Your task to perform on an android device: toggle location history Image 0: 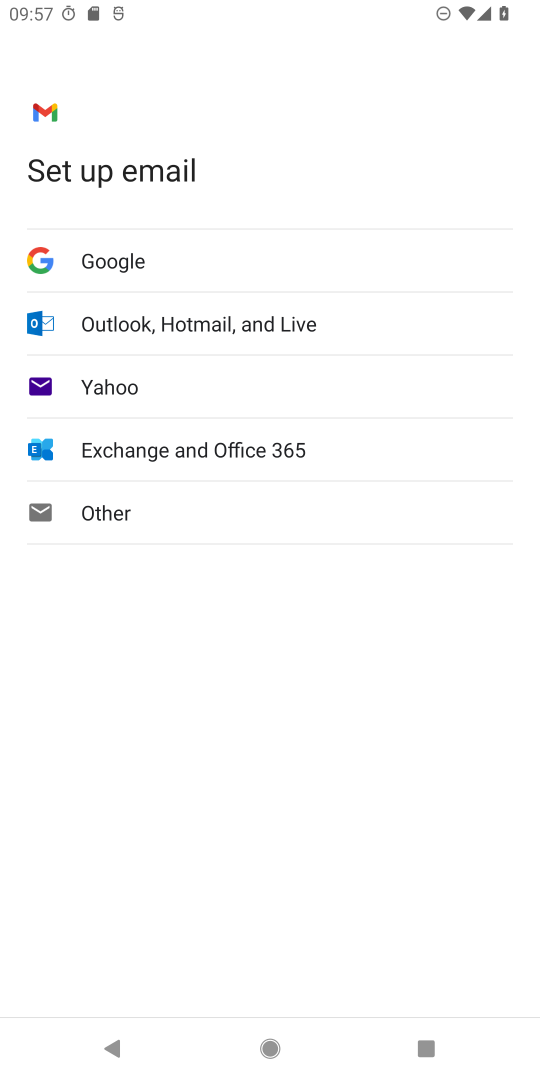
Step 0: press home button
Your task to perform on an android device: toggle location history Image 1: 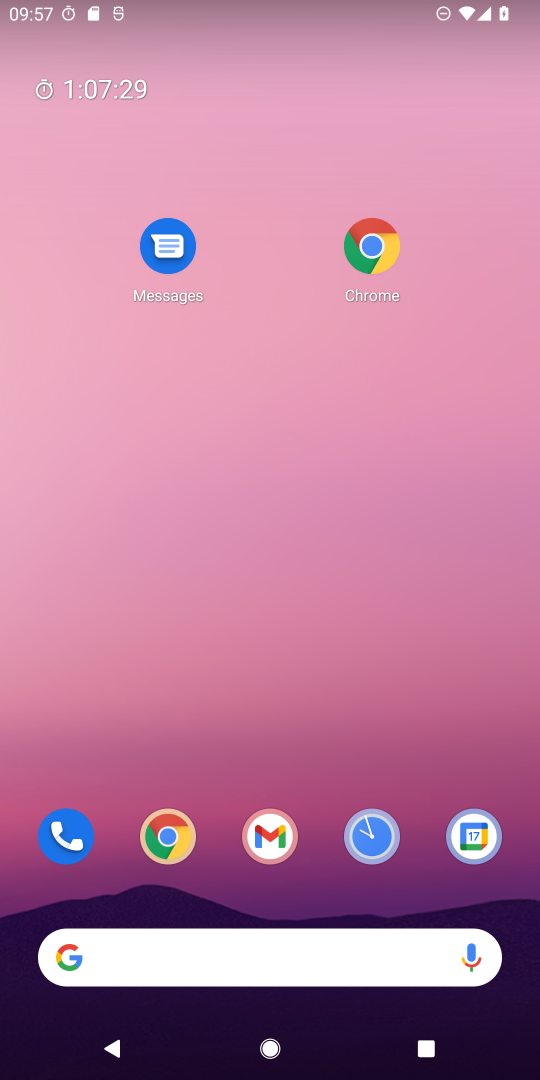
Step 1: drag from (286, 633) to (324, 240)
Your task to perform on an android device: toggle location history Image 2: 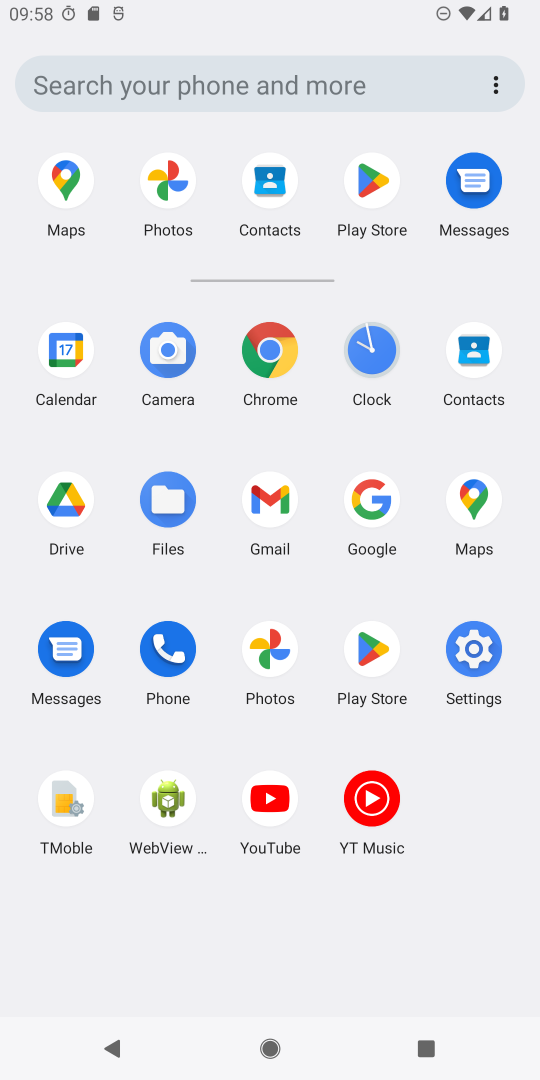
Step 2: click (480, 652)
Your task to perform on an android device: toggle location history Image 3: 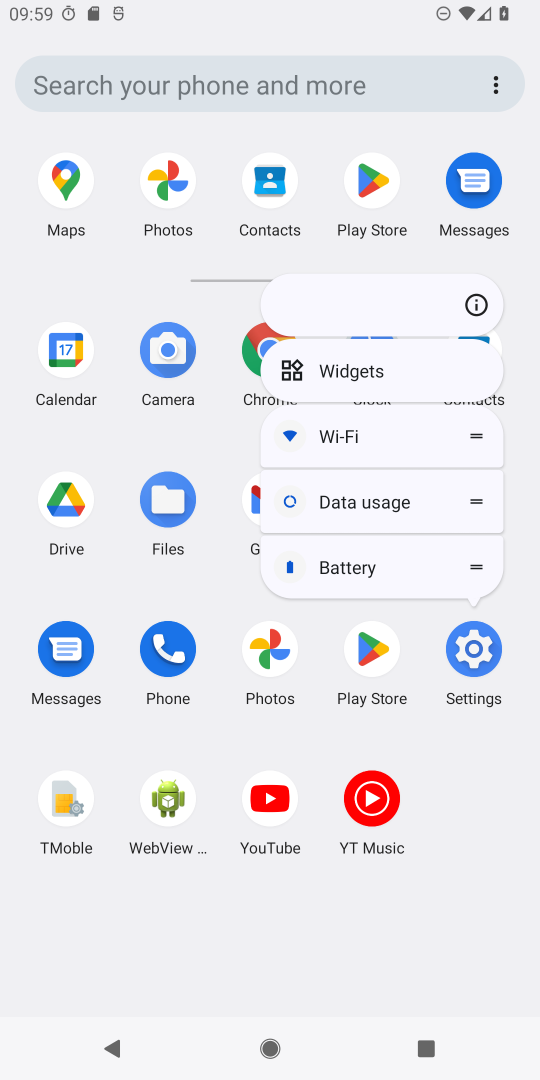
Step 3: click (459, 652)
Your task to perform on an android device: toggle location history Image 4: 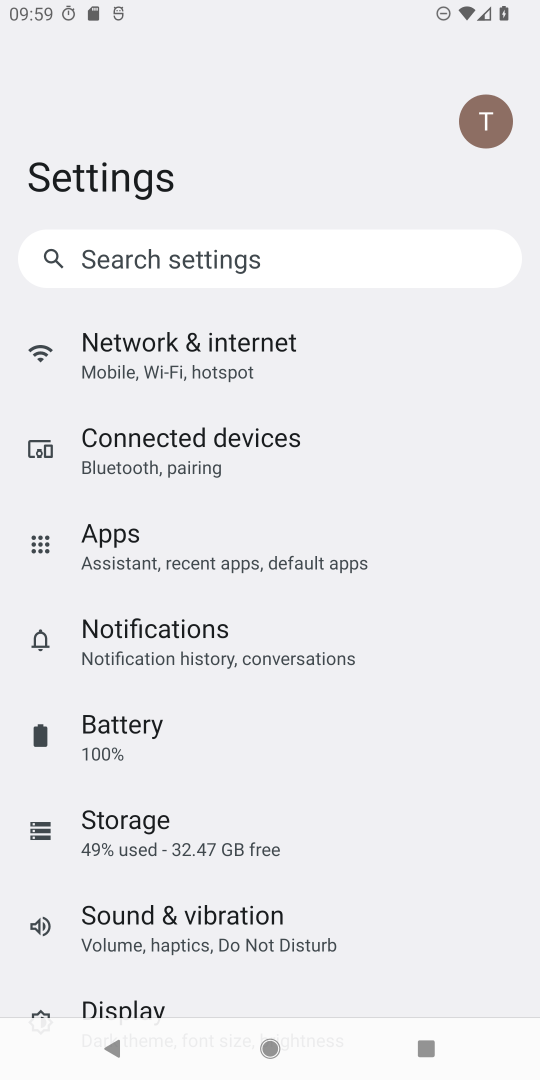
Step 4: drag from (206, 930) to (225, 242)
Your task to perform on an android device: toggle location history Image 5: 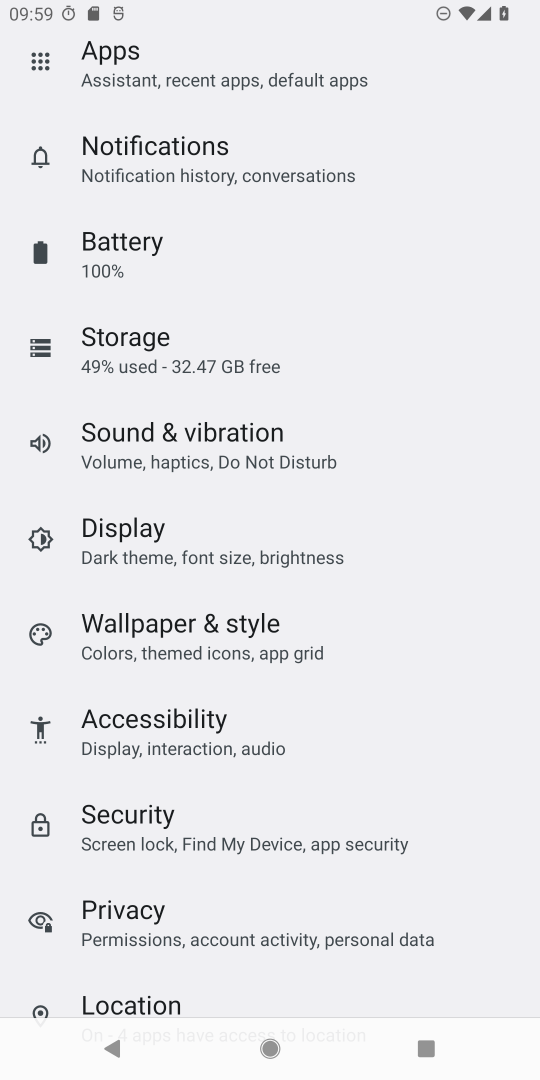
Step 5: click (129, 996)
Your task to perform on an android device: toggle location history Image 6: 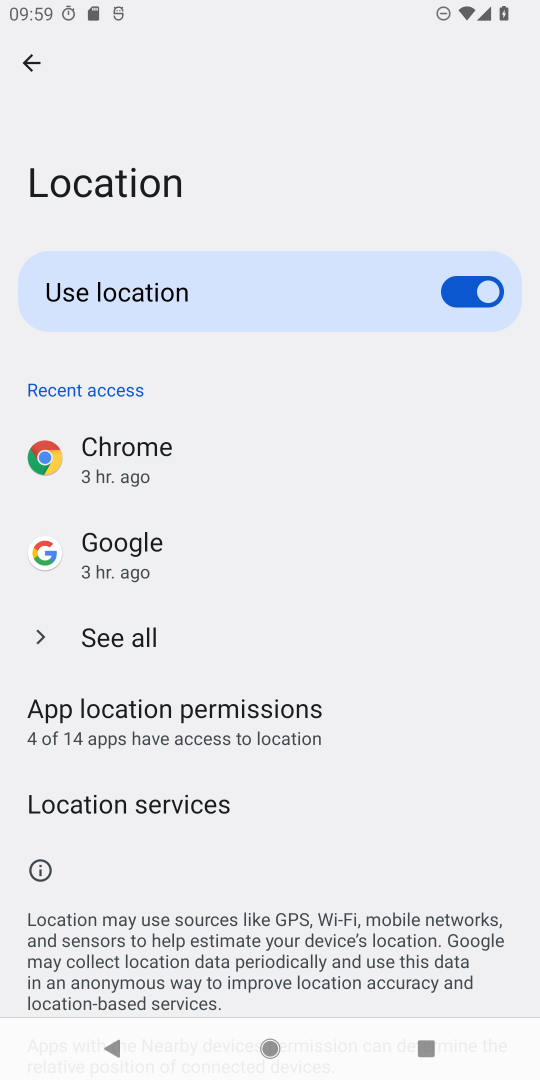
Step 6: click (164, 810)
Your task to perform on an android device: toggle location history Image 7: 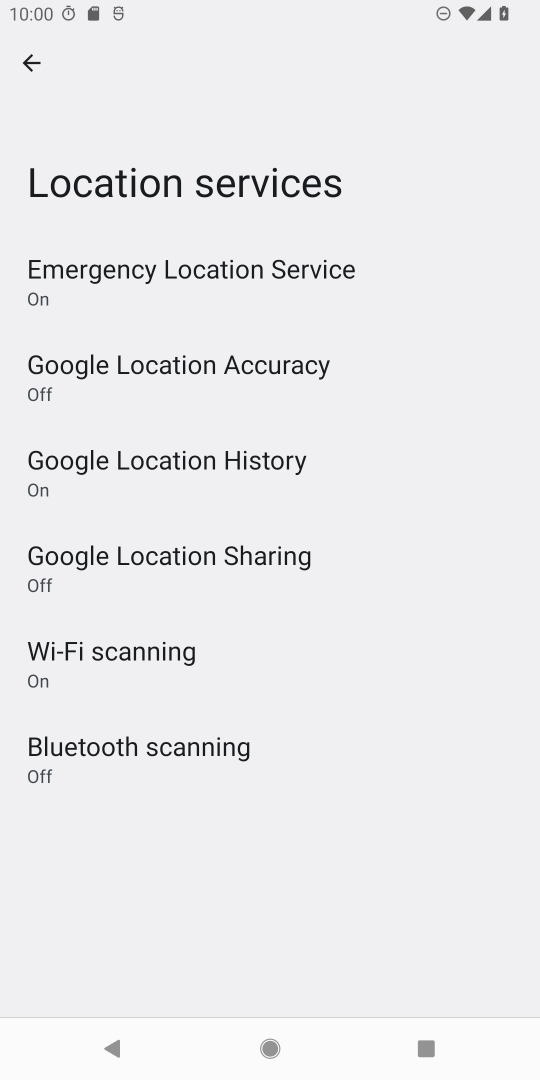
Step 7: click (210, 443)
Your task to perform on an android device: toggle location history Image 8: 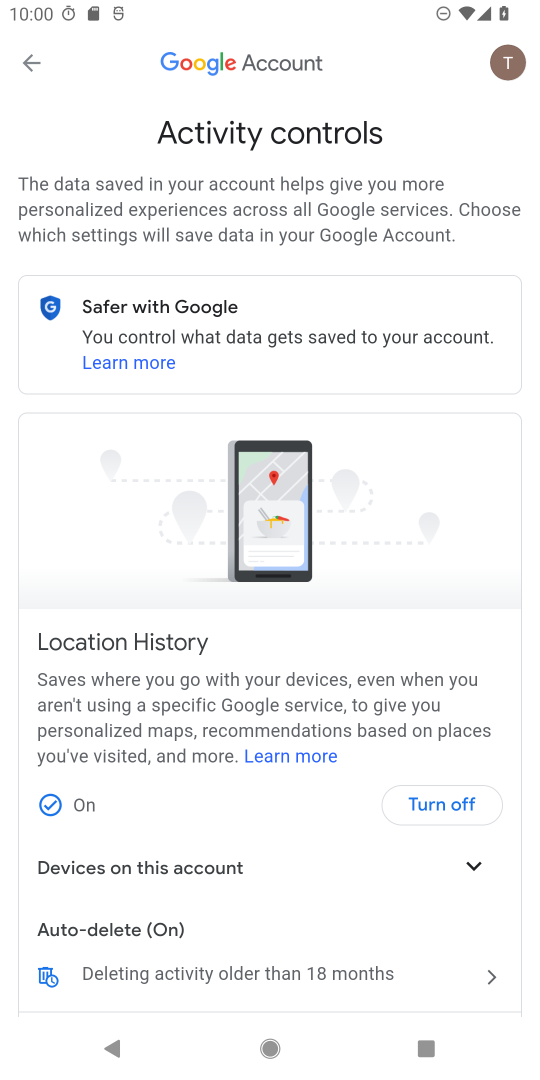
Step 8: click (441, 802)
Your task to perform on an android device: toggle location history Image 9: 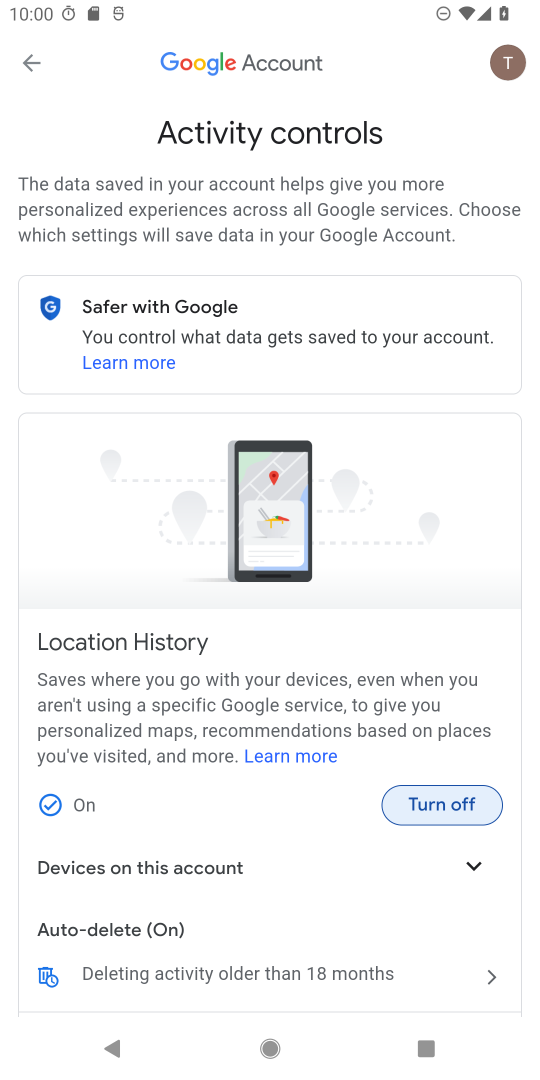
Step 9: task complete